Your task to perform on an android device: turn off location Image 0: 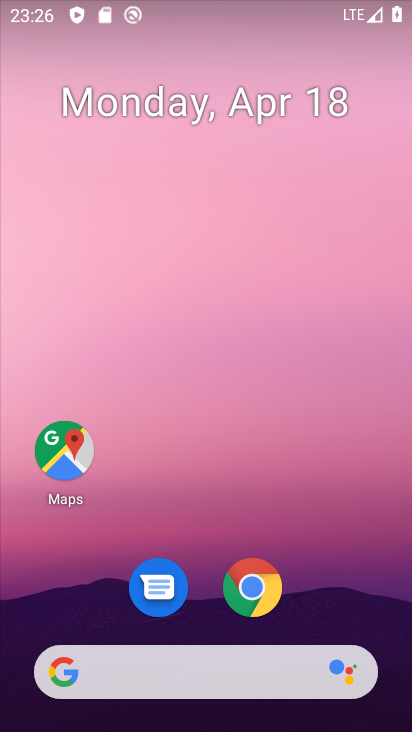
Step 0: drag from (366, 564) to (374, 149)
Your task to perform on an android device: turn off location Image 1: 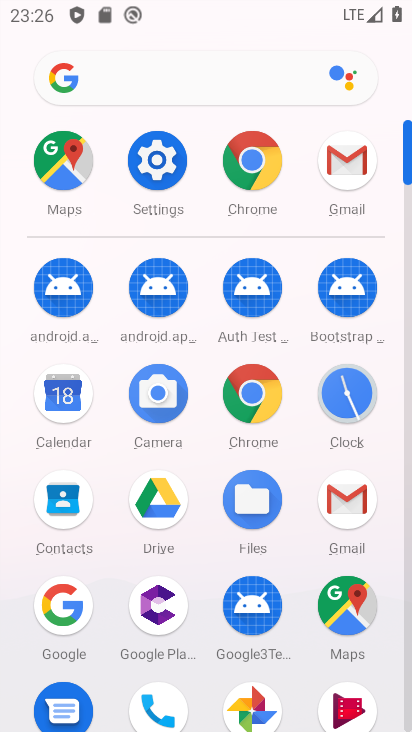
Step 1: click (160, 172)
Your task to perform on an android device: turn off location Image 2: 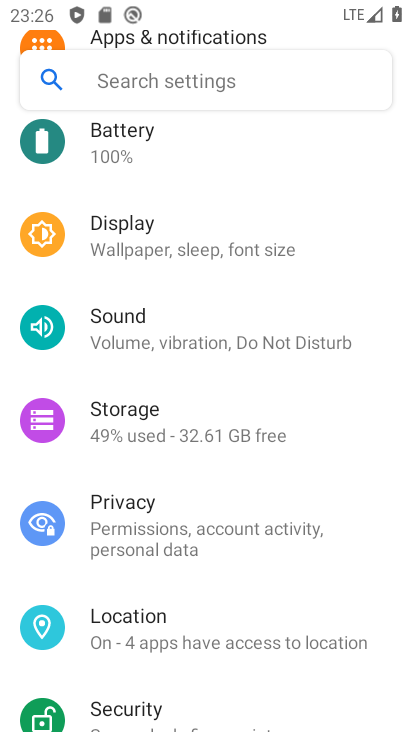
Step 2: click (152, 613)
Your task to perform on an android device: turn off location Image 3: 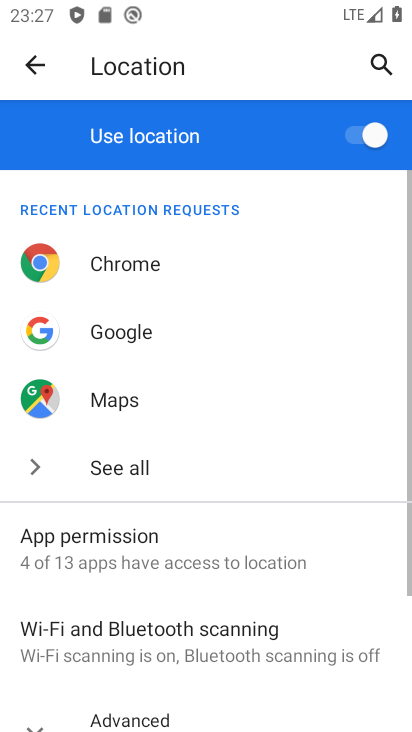
Step 3: drag from (363, 587) to (337, 327)
Your task to perform on an android device: turn off location Image 4: 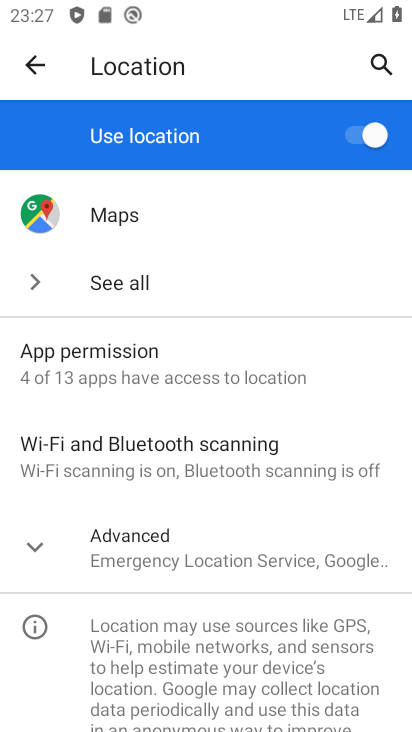
Step 4: click (225, 553)
Your task to perform on an android device: turn off location Image 5: 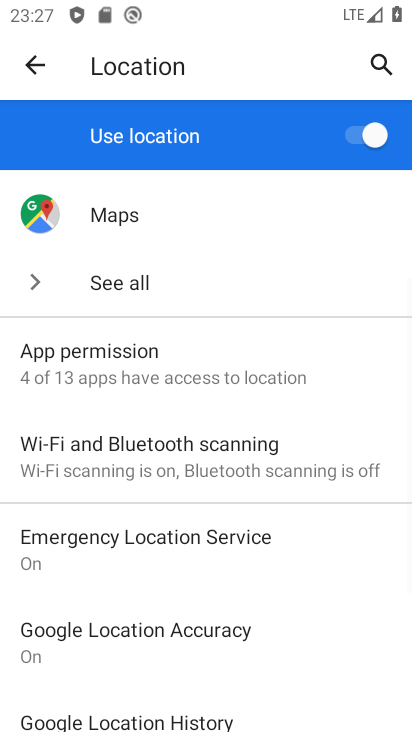
Step 5: drag from (312, 673) to (361, 342)
Your task to perform on an android device: turn off location Image 6: 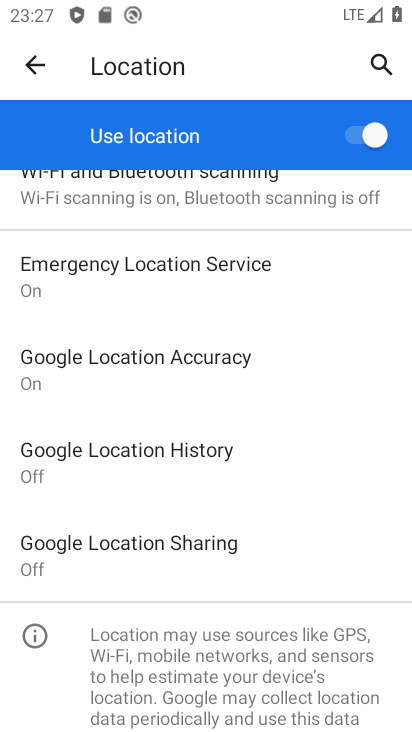
Step 6: click (100, 447)
Your task to perform on an android device: turn off location Image 7: 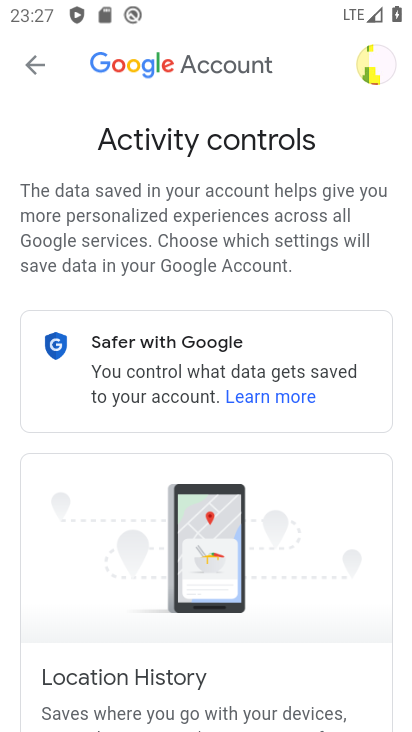
Step 7: drag from (108, 589) to (155, 261)
Your task to perform on an android device: turn off location Image 8: 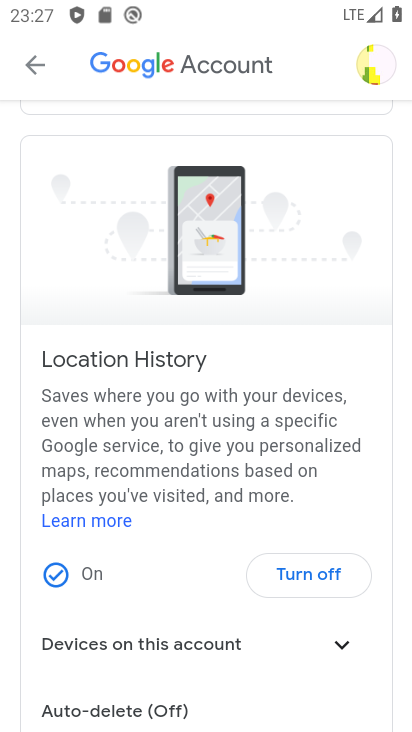
Step 8: drag from (223, 676) to (270, 371)
Your task to perform on an android device: turn off location Image 9: 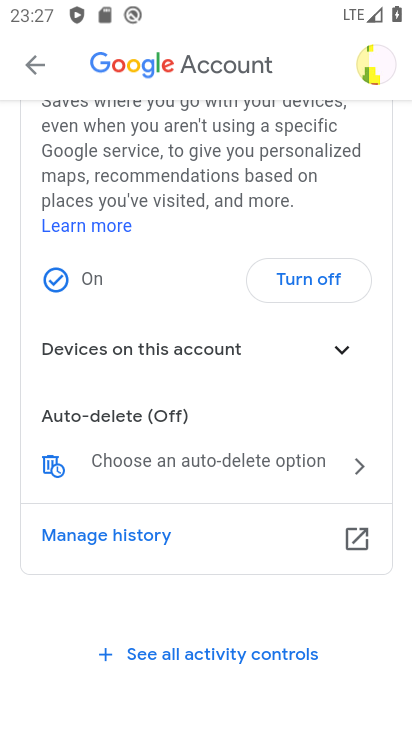
Step 9: click (152, 526)
Your task to perform on an android device: turn off location Image 10: 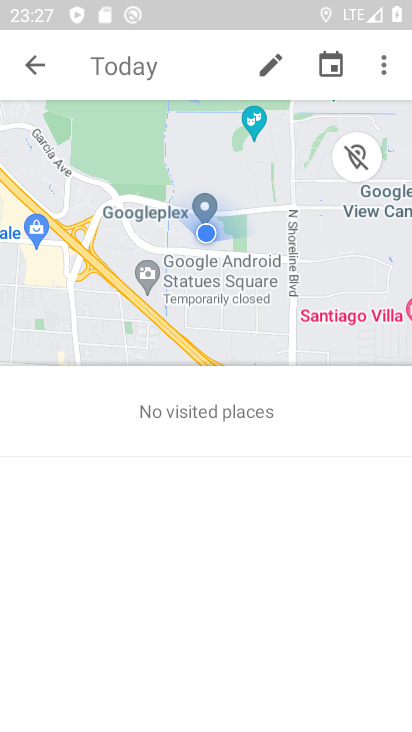
Step 10: click (379, 68)
Your task to perform on an android device: turn off location Image 11: 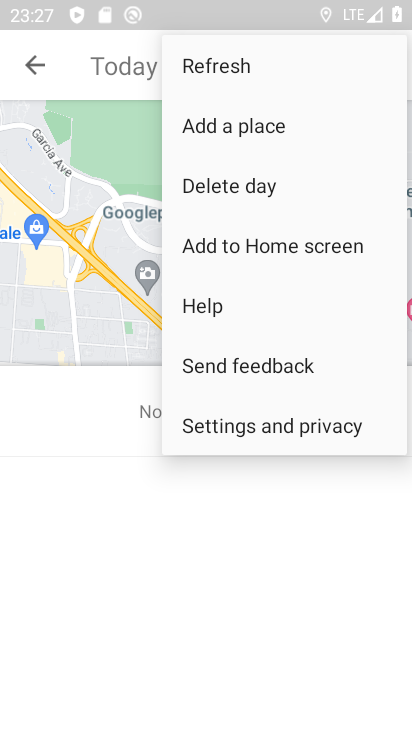
Step 11: click (261, 427)
Your task to perform on an android device: turn off location Image 12: 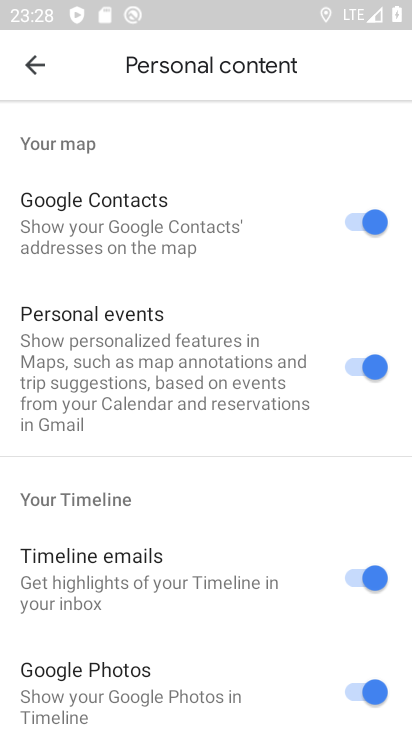
Step 12: drag from (187, 616) to (261, 229)
Your task to perform on an android device: turn off location Image 13: 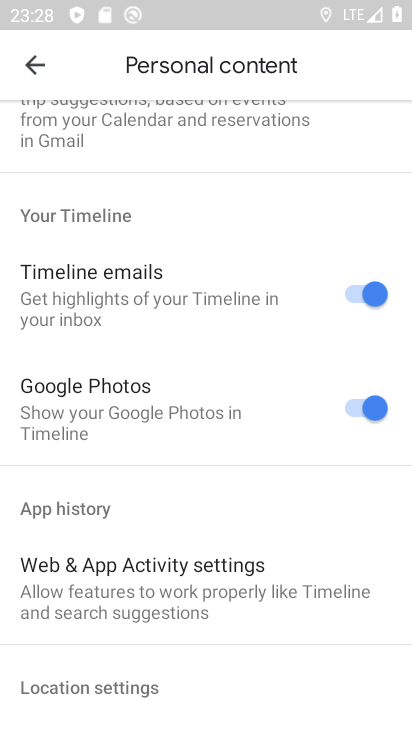
Step 13: drag from (214, 620) to (254, 267)
Your task to perform on an android device: turn off location Image 14: 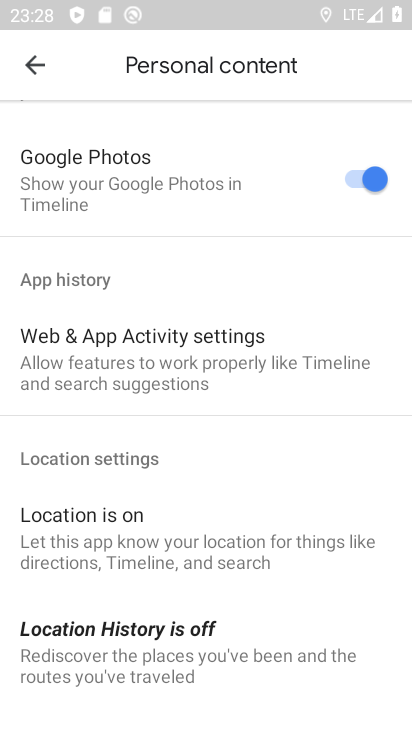
Step 14: click (132, 529)
Your task to perform on an android device: turn off location Image 15: 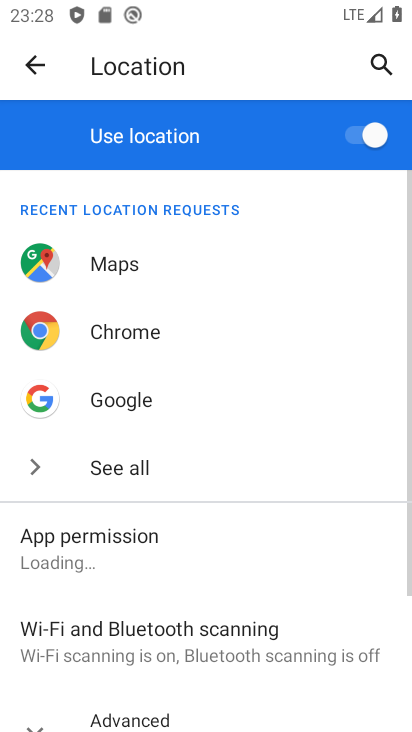
Step 15: click (353, 142)
Your task to perform on an android device: turn off location Image 16: 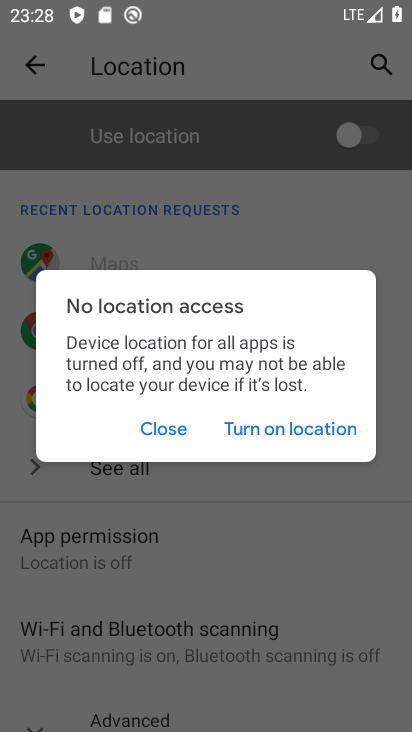
Step 16: task complete